Your task to perform on an android device: When is my next appointment? Image 0: 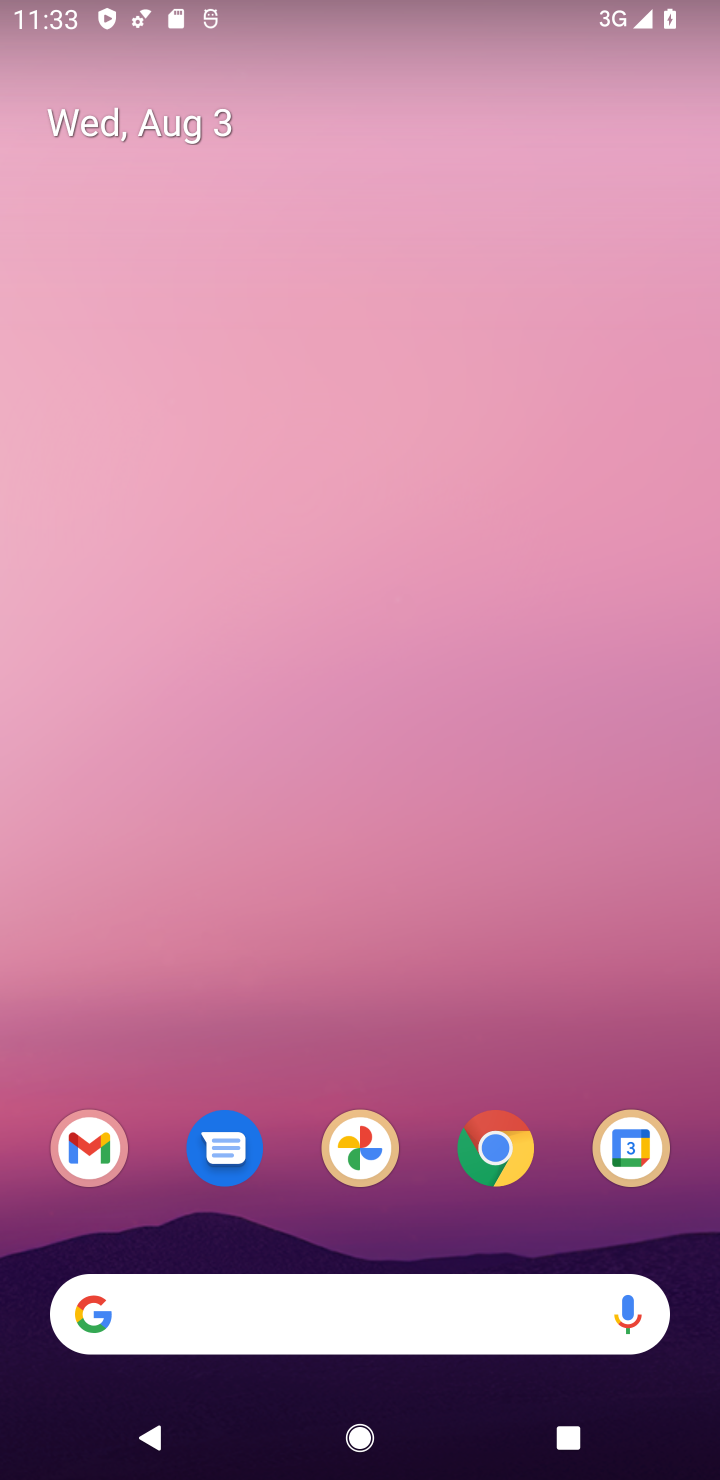
Step 0: drag from (425, 945) to (574, 113)
Your task to perform on an android device: When is my next appointment? Image 1: 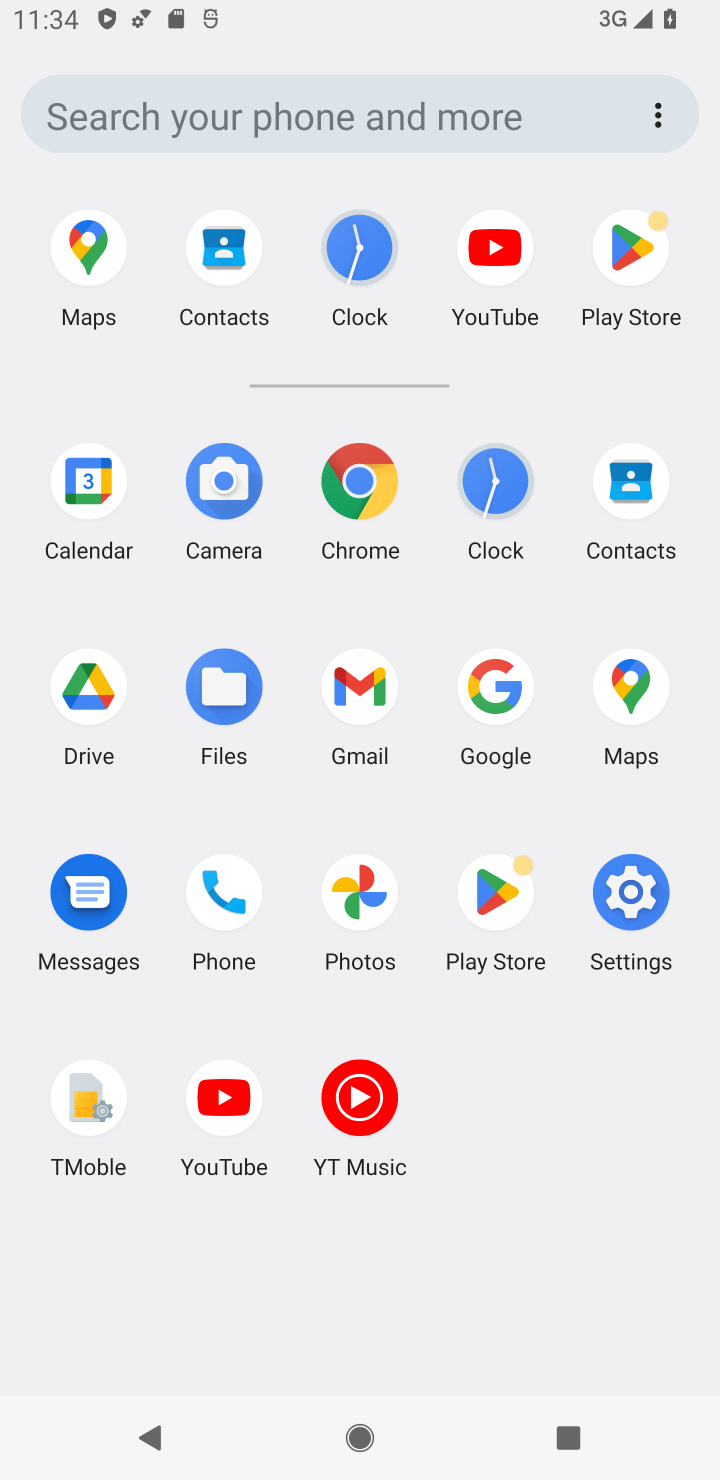
Step 1: click (75, 485)
Your task to perform on an android device: When is my next appointment? Image 2: 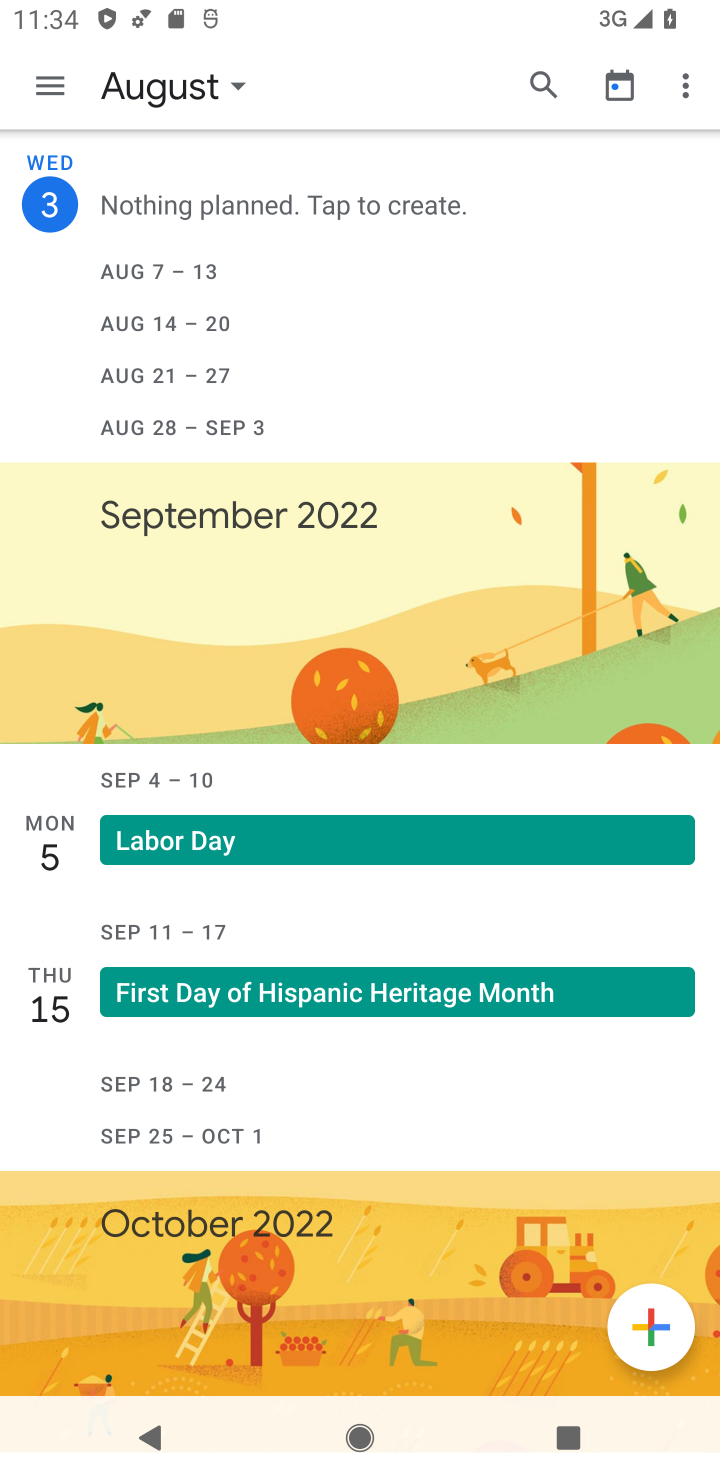
Step 2: task complete